Your task to perform on an android device: install app "Move to iOS" Image 0: 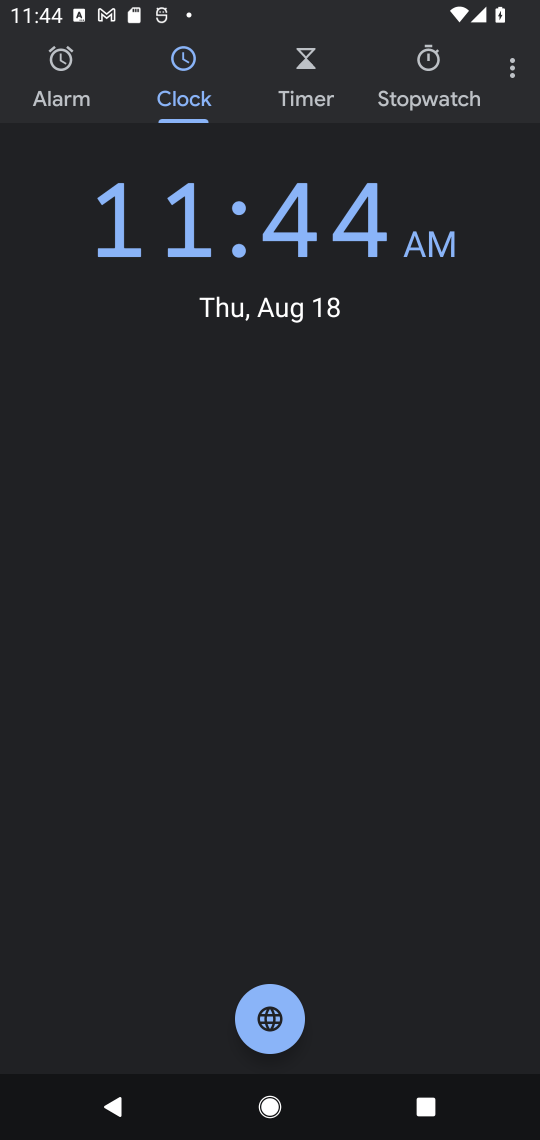
Step 0: press home button
Your task to perform on an android device: install app "Move to iOS" Image 1: 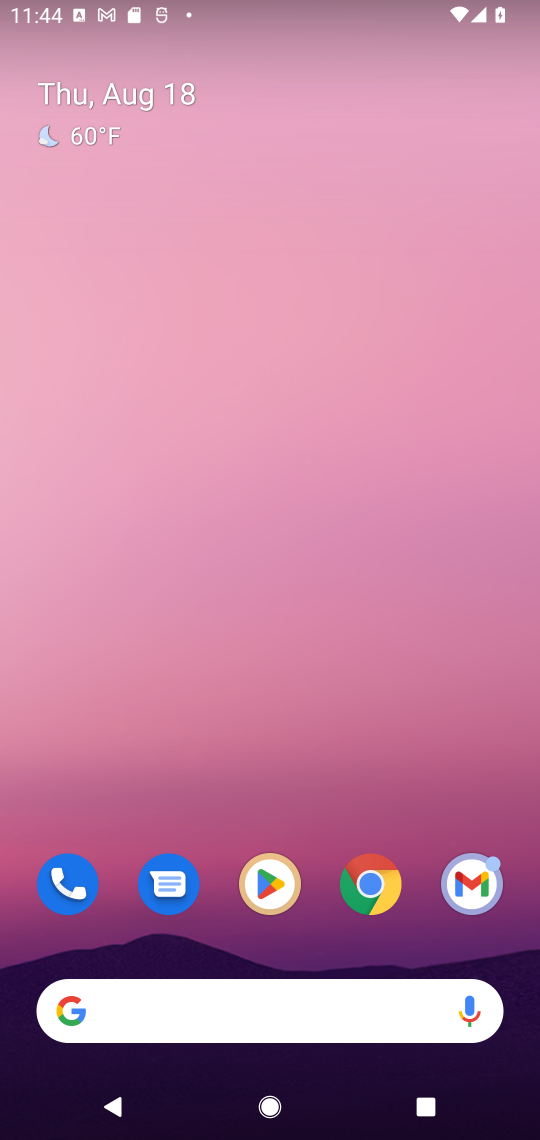
Step 1: drag from (269, 1001) to (378, 66)
Your task to perform on an android device: install app "Move to iOS" Image 2: 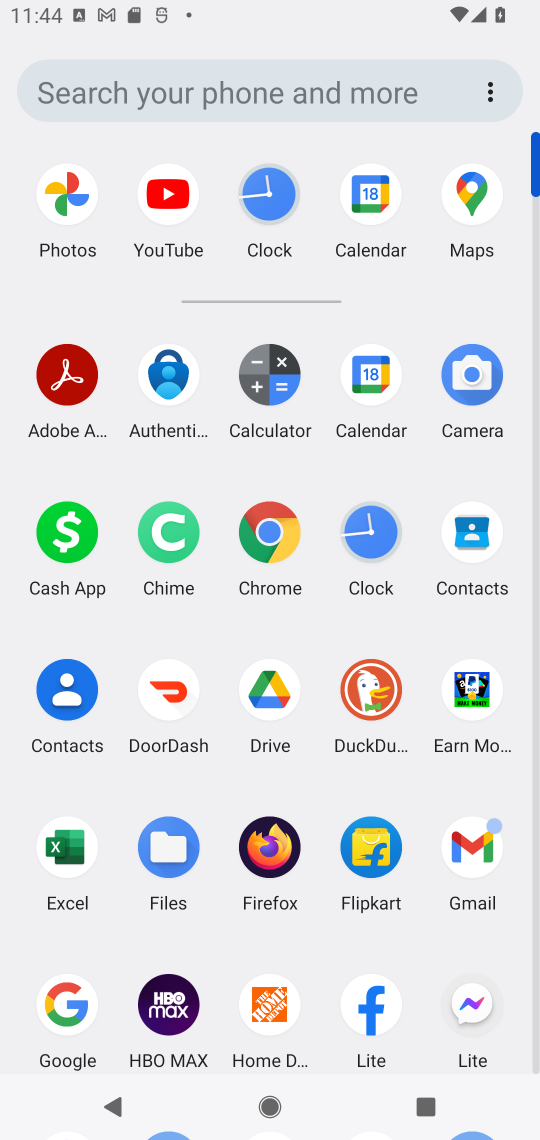
Step 2: drag from (203, 812) to (185, 386)
Your task to perform on an android device: install app "Move to iOS" Image 3: 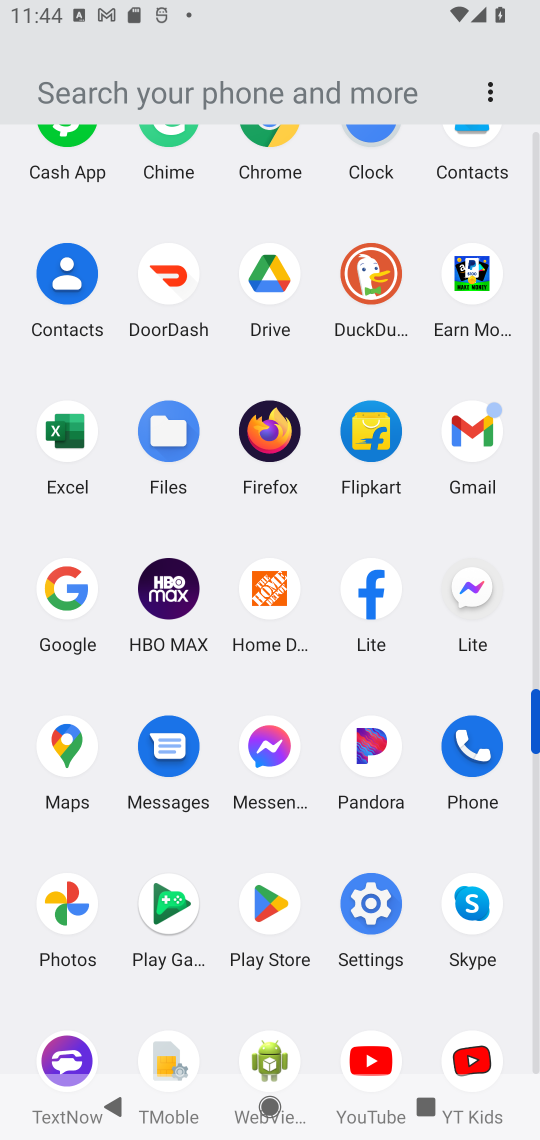
Step 3: click (269, 909)
Your task to perform on an android device: install app "Move to iOS" Image 4: 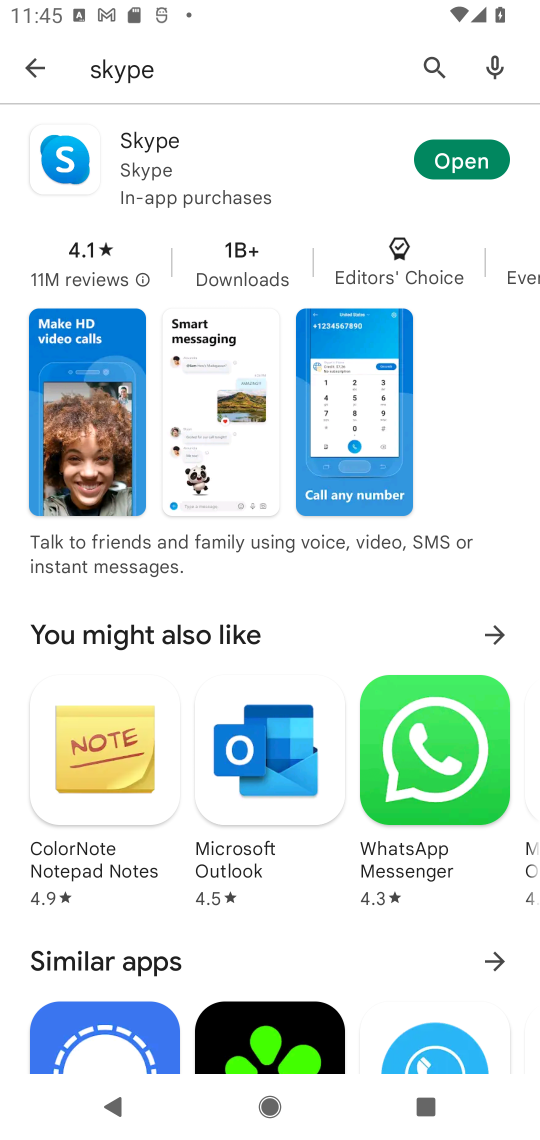
Step 4: press back button
Your task to perform on an android device: install app "Move to iOS" Image 5: 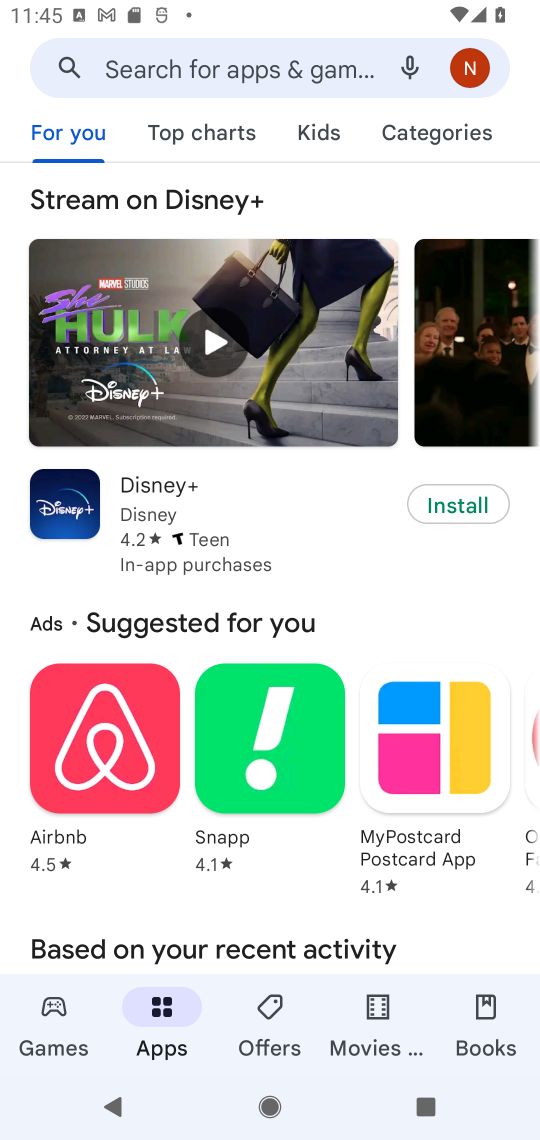
Step 5: click (301, 69)
Your task to perform on an android device: install app "Move to iOS" Image 6: 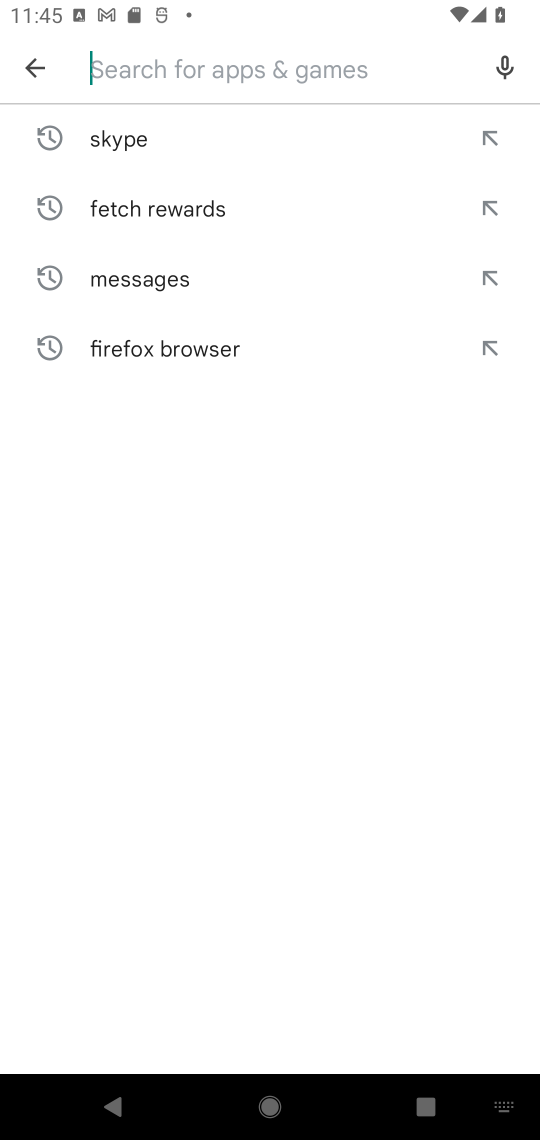
Step 6: type "Move to iOS"
Your task to perform on an android device: install app "Move to iOS" Image 7: 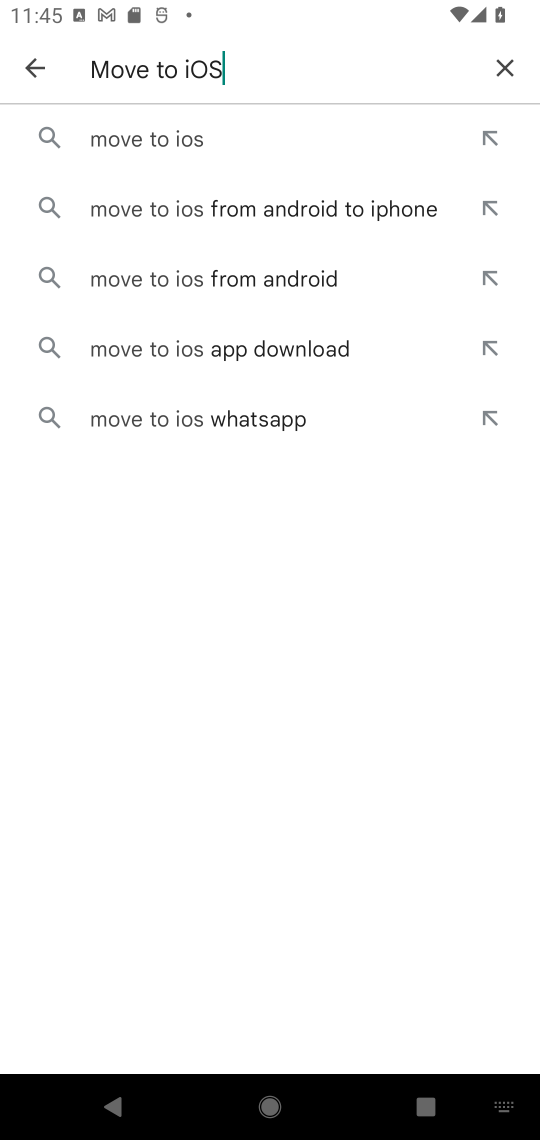
Step 7: click (105, 136)
Your task to perform on an android device: install app "Move to iOS" Image 8: 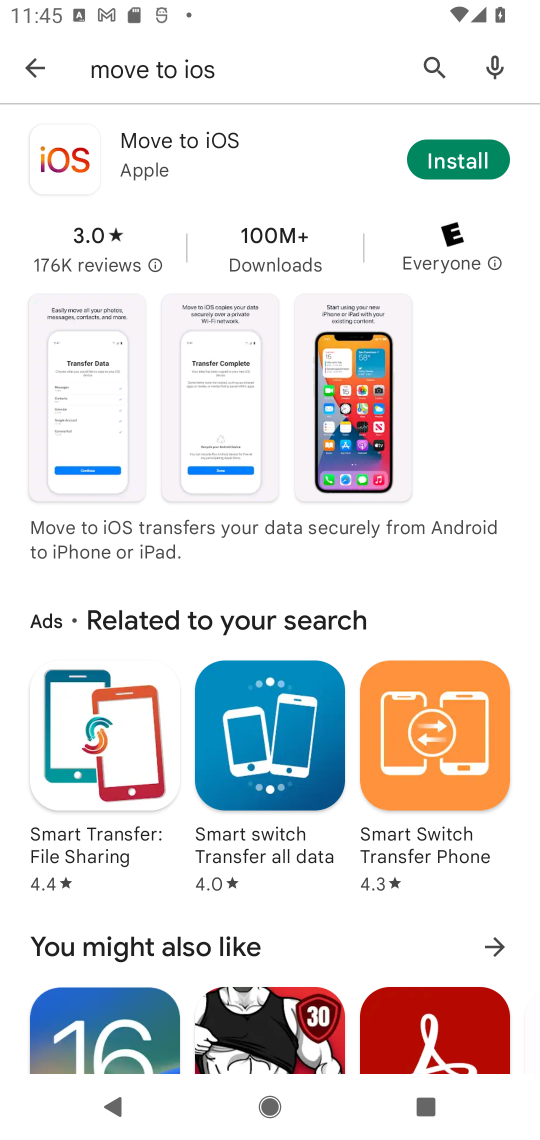
Step 8: click (462, 166)
Your task to perform on an android device: install app "Move to iOS" Image 9: 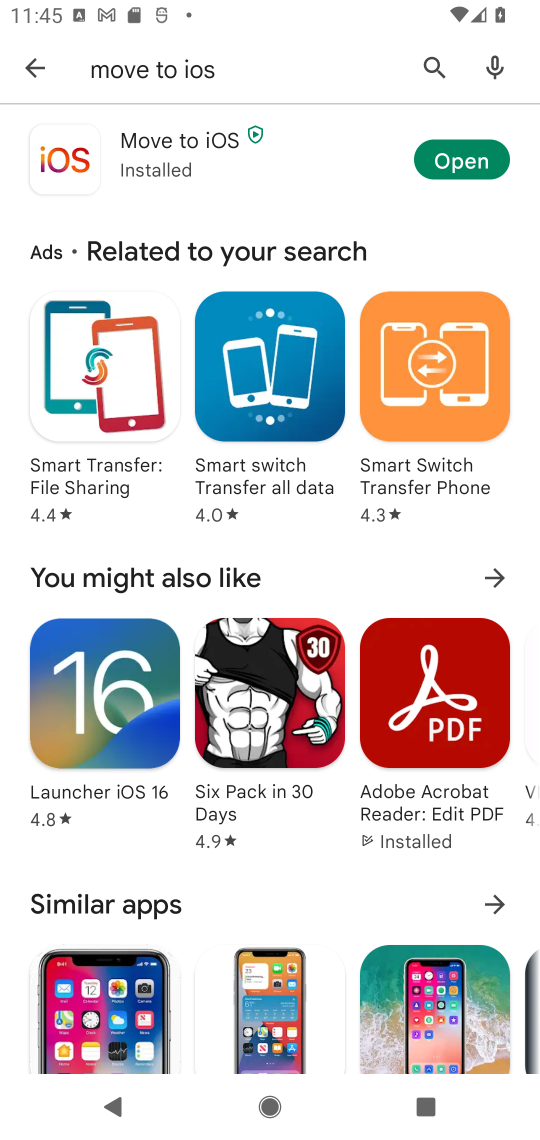
Step 9: task complete